Your task to perform on an android device: Go to CNN.com Image 0: 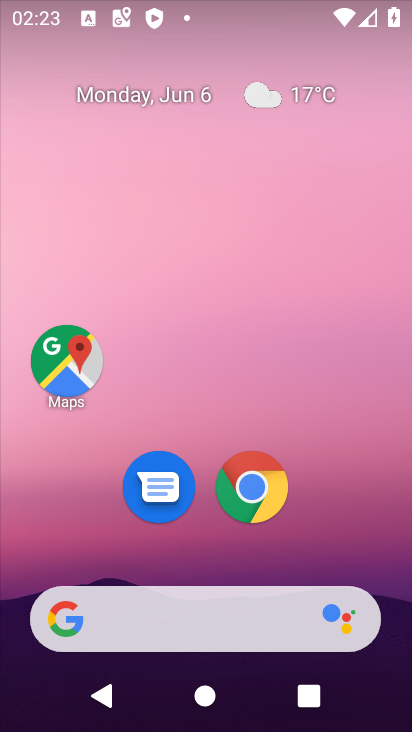
Step 0: click (259, 486)
Your task to perform on an android device: Go to CNN.com Image 1: 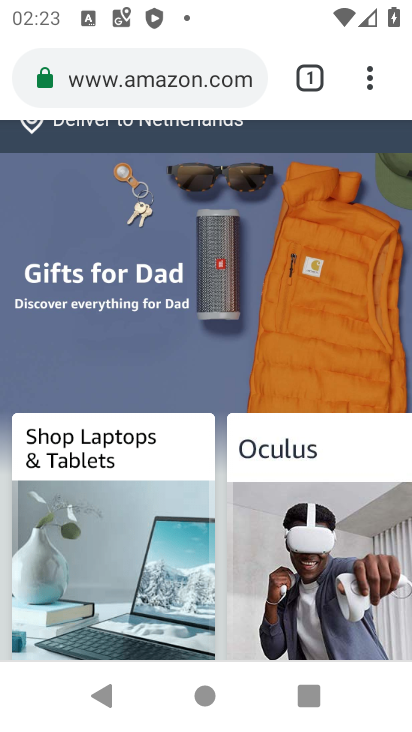
Step 1: click (210, 58)
Your task to perform on an android device: Go to CNN.com Image 2: 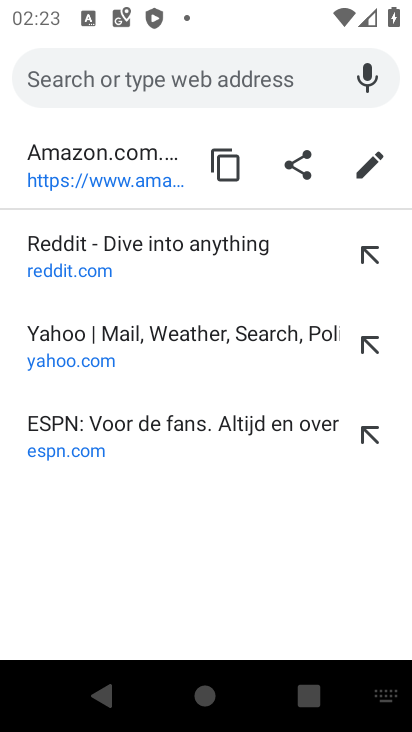
Step 2: type "cnn.com"
Your task to perform on an android device: Go to CNN.com Image 3: 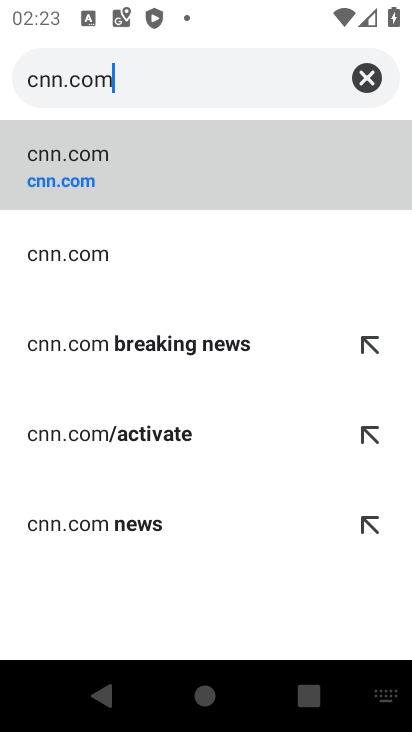
Step 3: click (61, 172)
Your task to perform on an android device: Go to CNN.com Image 4: 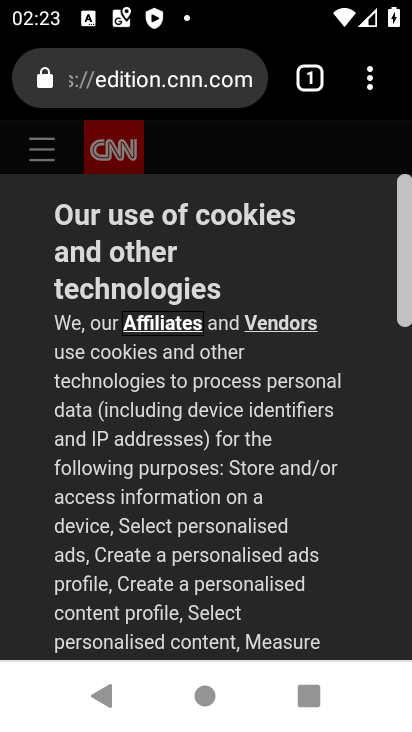
Step 4: task complete